Your task to perform on an android device: Turn off the flashlight Image 0: 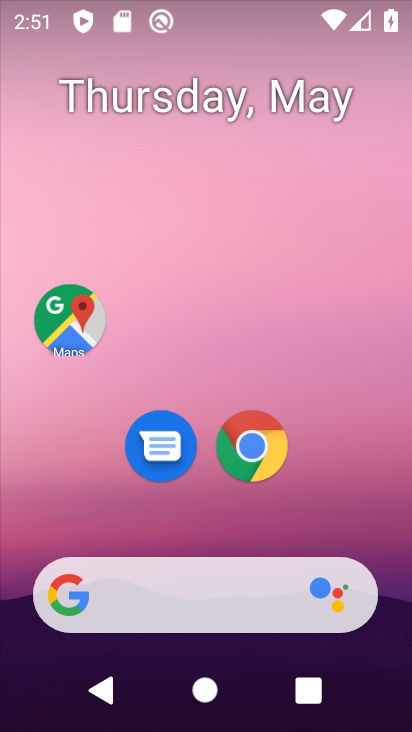
Step 0: drag from (205, 5) to (228, 688)
Your task to perform on an android device: Turn off the flashlight Image 1: 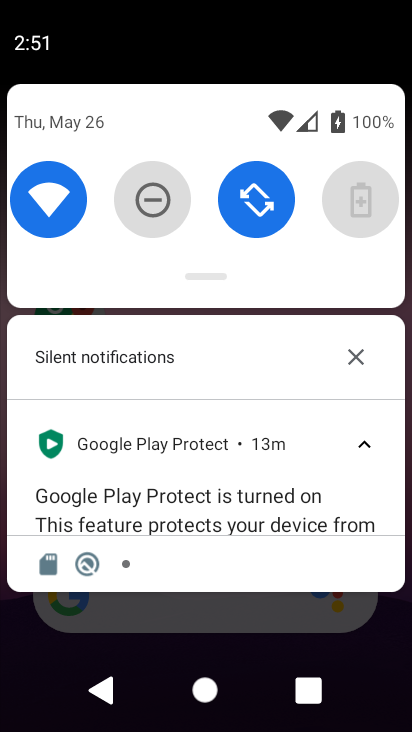
Step 1: task complete